Your task to perform on an android device: turn off airplane mode Image 0: 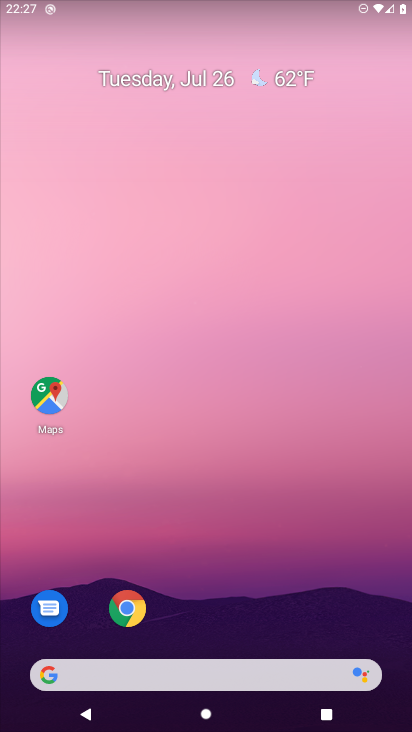
Step 0: drag from (15, 705) to (123, 141)
Your task to perform on an android device: turn off airplane mode Image 1: 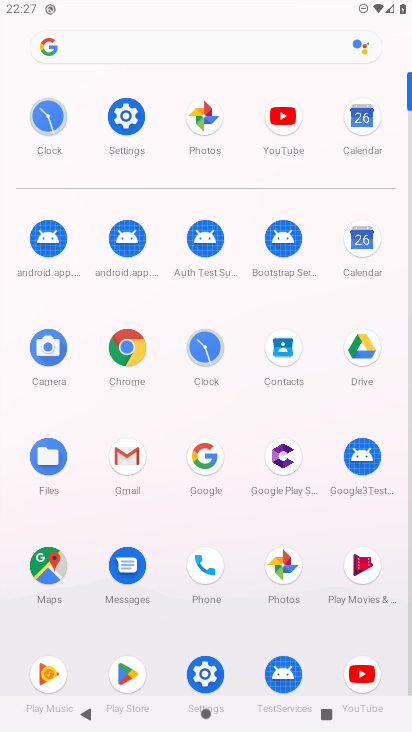
Step 1: click (202, 671)
Your task to perform on an android device: turn off airplane mode Image 2: 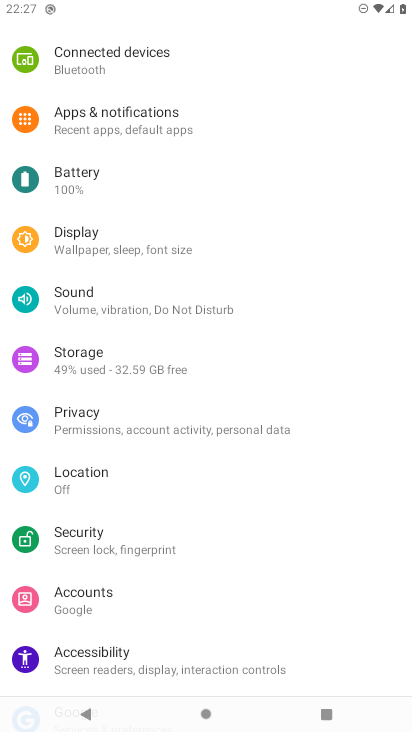
Step 2: drag from (302, 68) to (330, 661)
Your task to perform on an android device: turn off airplane mode Image 3: 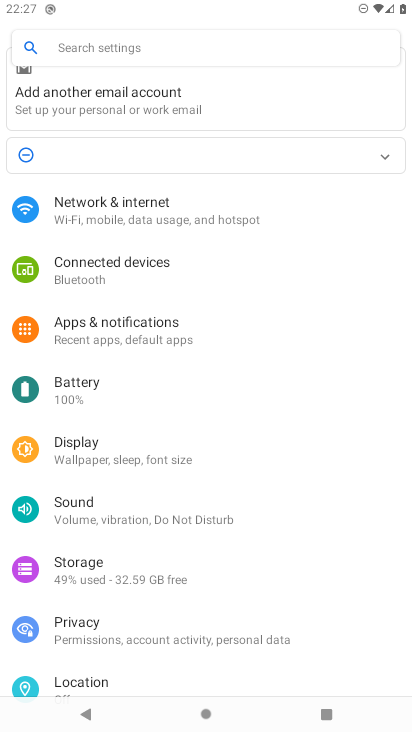
Step 3: click (124, 204)
Your task to perform on an android device: turn off airplane mode Image 4: 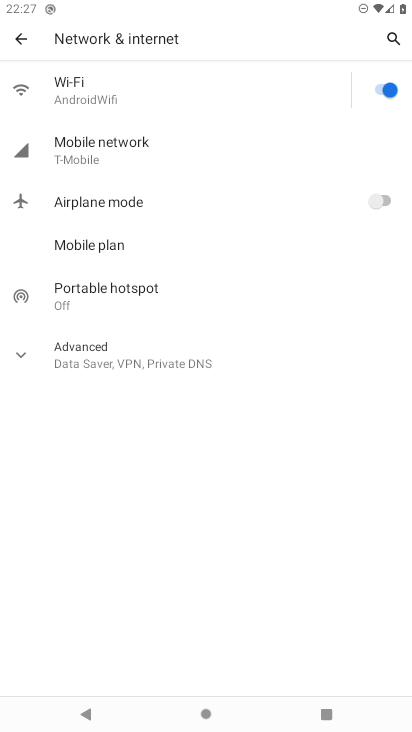
Step 4: task complete